Your task to perform on an android device: refresh tabs in the chrome app Image 0: 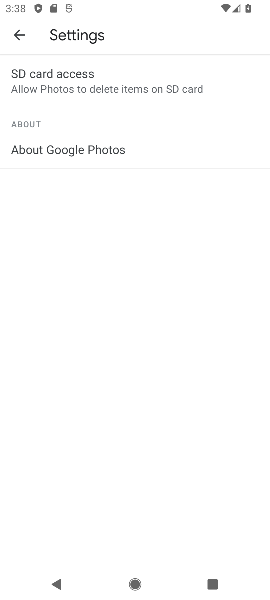
Step 0: press home button
Your task to perform on an android device: refresh tabs in the chrome app Image 1: 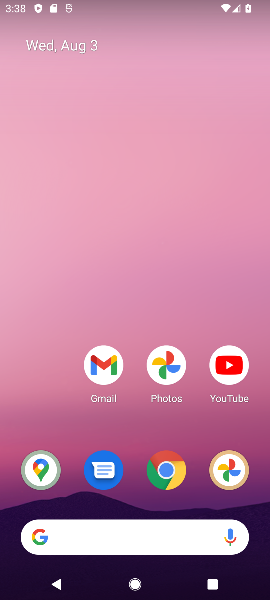
Step 1: click (178, 469)
Your task to perform on an android device: refresh tabs in the chrome app Image 2: 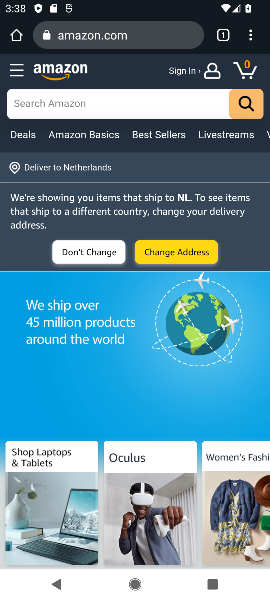
Step 2: click (252, 42)
Your task to perform on an android device: refresh tabs in the chrome app Image 3: 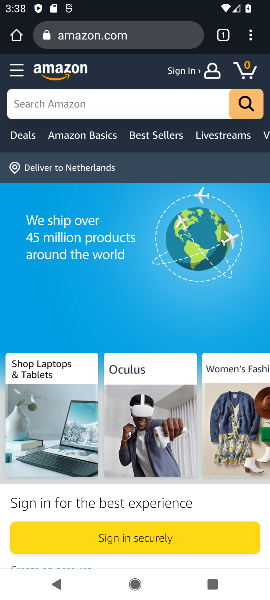
Step 3: click (254, 36)
Your task to perform on an android device: refresh tabs in the chrome app Image 4: 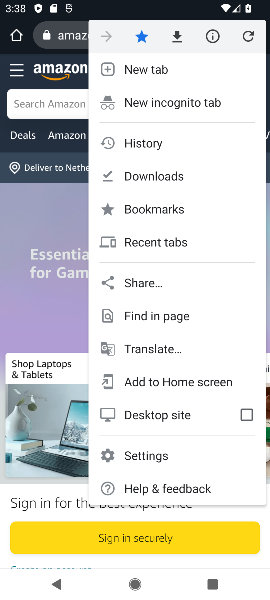
Step 4: click (249, 40)
Your task to perform on an android device: refresh tabs in the chrome app Image 5: 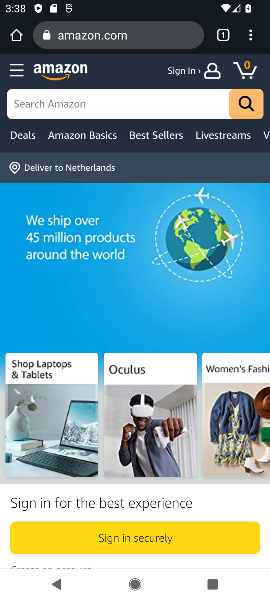
Step 5: task complete